Your task to perform on an android device: change the clock style Image 0: 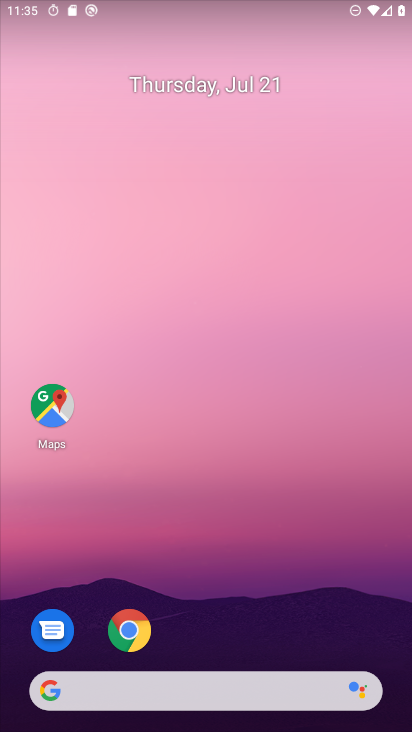
Step 0: press home button
Your task to perform on an android device: change the clock style Image 1: 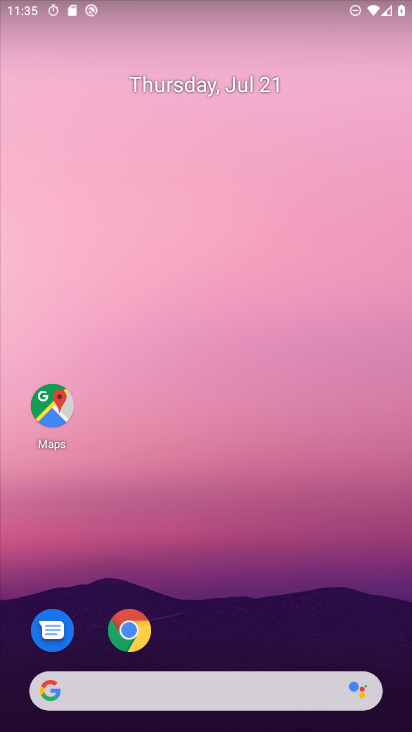
Step 1: drag from (317, 628) to (198, 43)
Your task to perform on an android device: change the clock style Image 2: 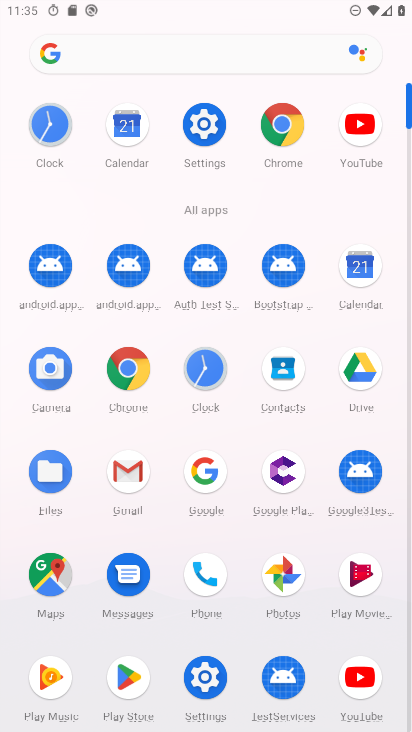
Step 2: click (46, 124)
Your task to perform on an android device: change the clock style Image 3: 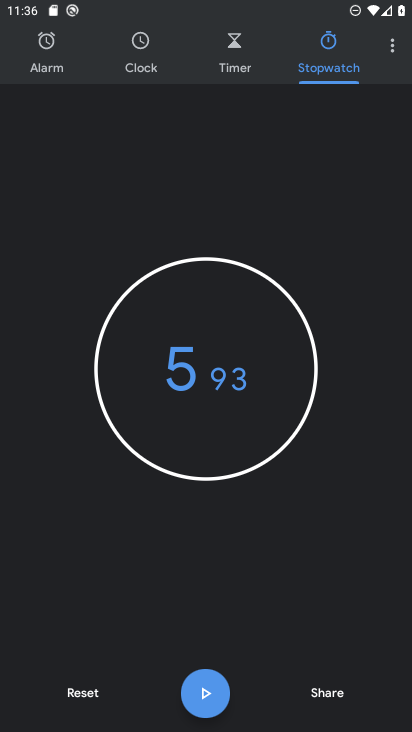
Step 3: click (397, 49)
Your task to perform on an android device: change the clock style Image 4: 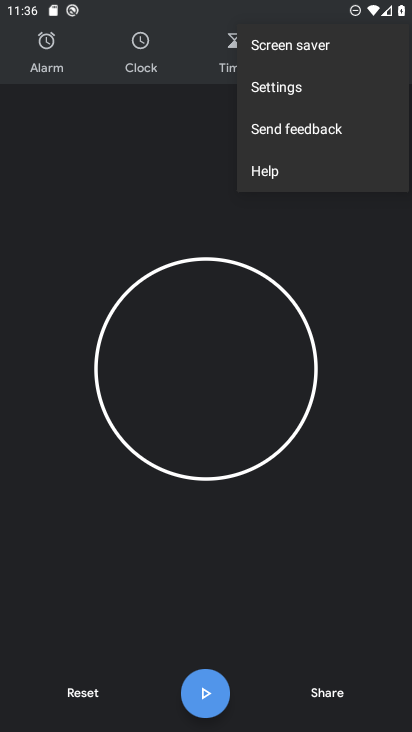
Step 4: click (302, 91)
Your task to perform on an android device: change the clock style Image 5: 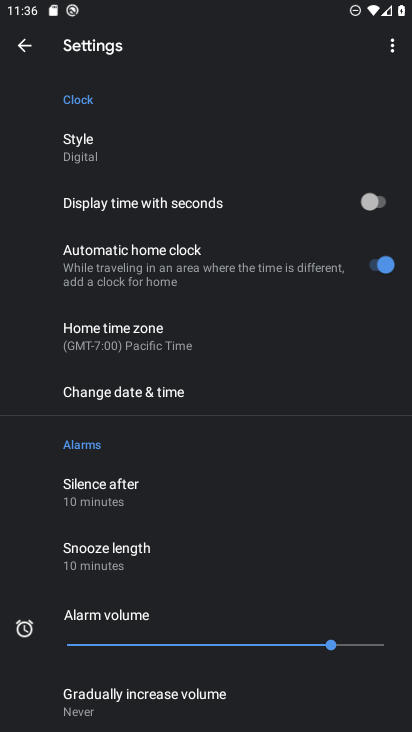
Step 5: click (88, 148)
Your task to perform on an android device: change the clock style Image 6: 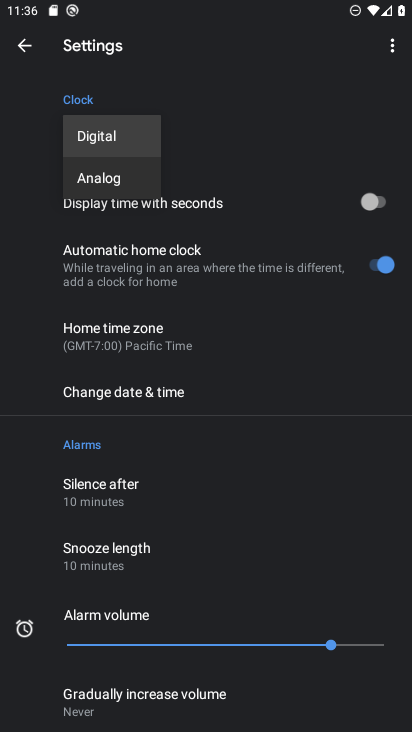
Step 6: click (131, 180)
Your task to perform on an android device: change the clock style Image 7: 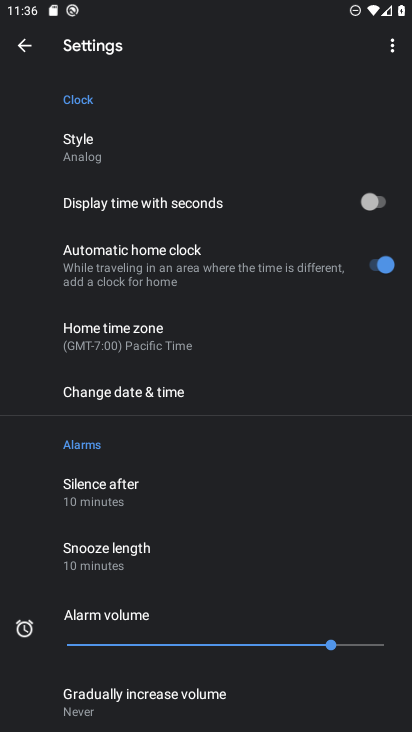
Step 7: task complete